Your task to perform on an android device: Turn off the flashlight Image 0: 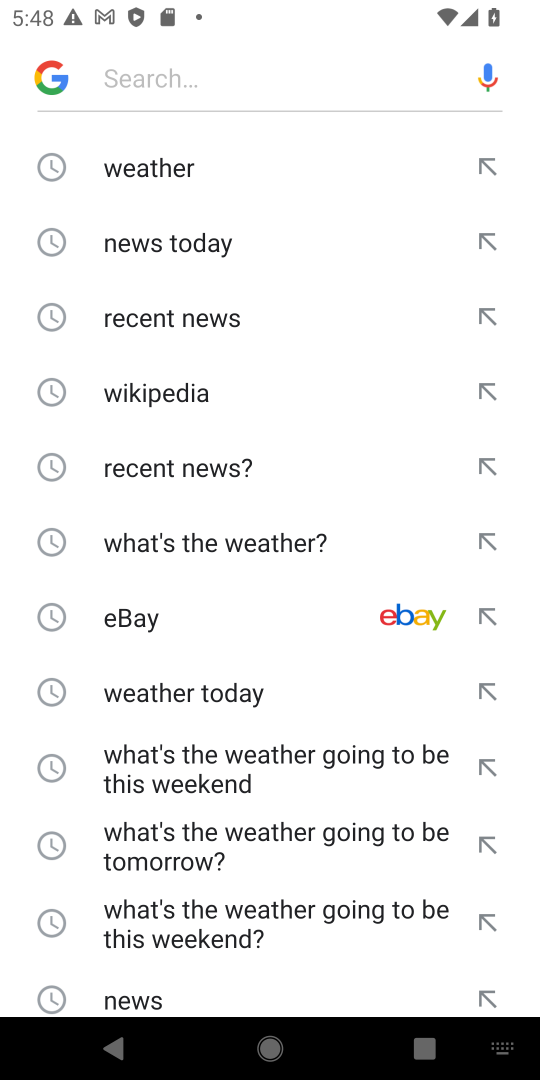
Step 0: press home button
Your task to perform on an android device: Turn off the flashlight Image 1: 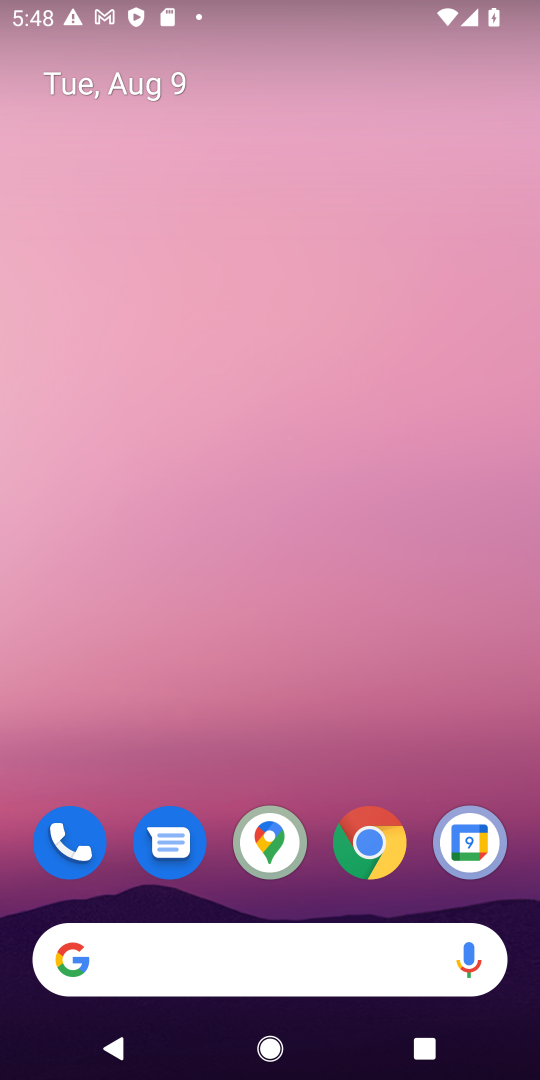
Step 1: drag from (251, 819) to (290, 44)
Your task to perform on an android device: Turn off the flashlight Image 2: 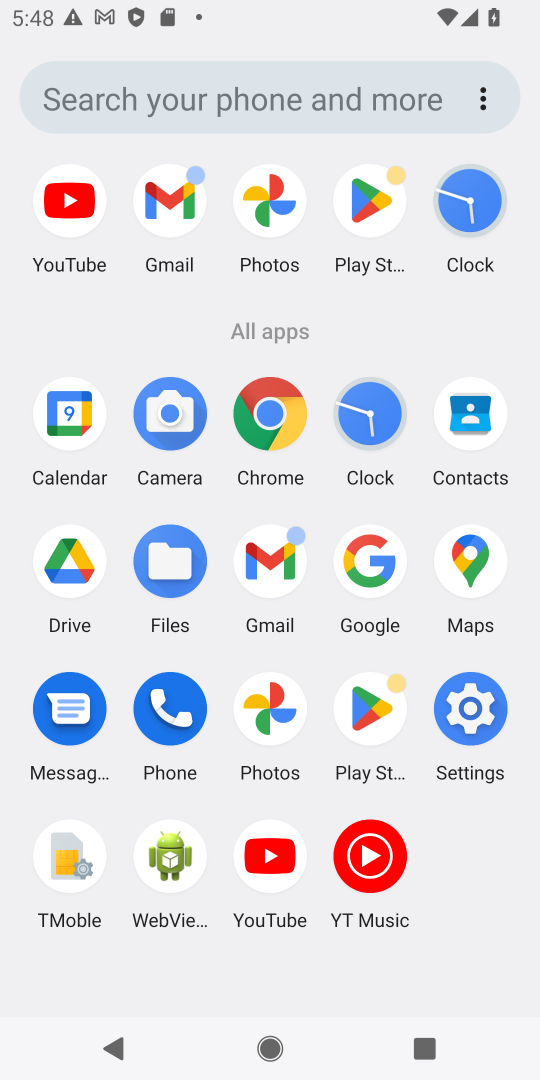
Step 2: click (464, 742)
Your task to perform on an android device: Turn off the flashlight Image 3: 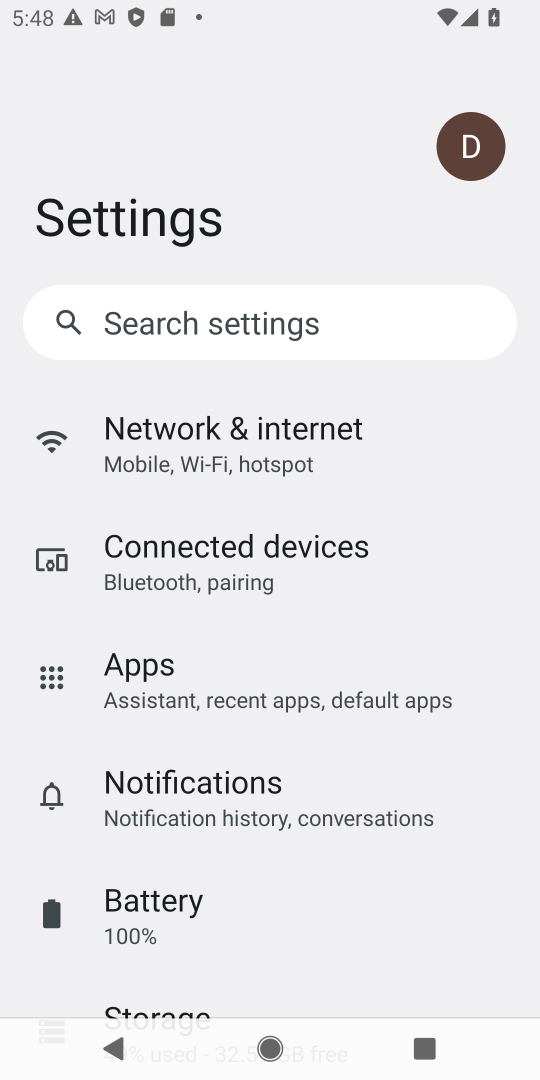
Step 3: task complete